Your task to perform on an android device: When is my next appointment? Image 0: 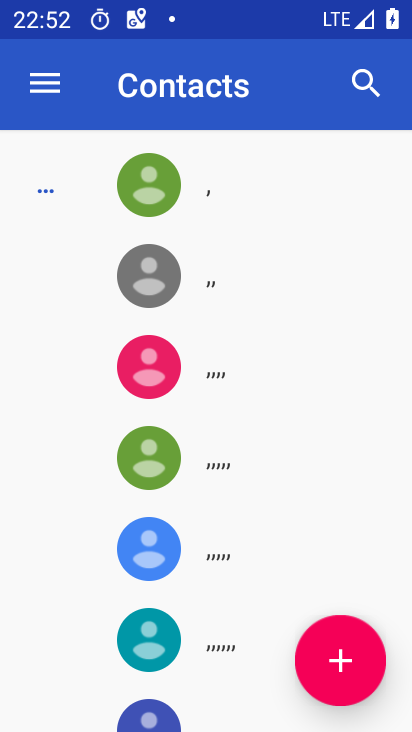
Step 0: press home button
Your task to perform on an android device: When is my next appointment? Image 1: 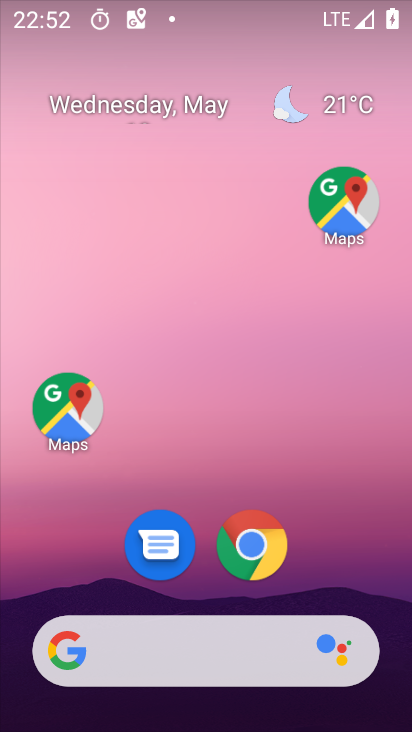
Step 1: drag from (321, 569) to (312, 95)
Your task to perform on an android device: When is my next appointment? Image 2: 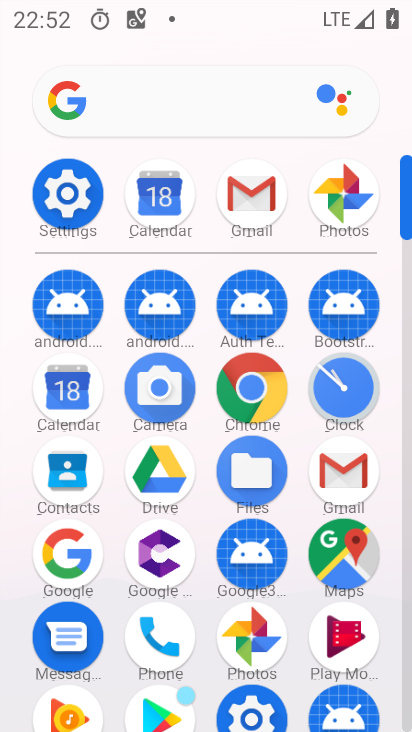
Step 2: click (74, 395)
Your task to perform on an android device: When is my next appointment? Image 3: 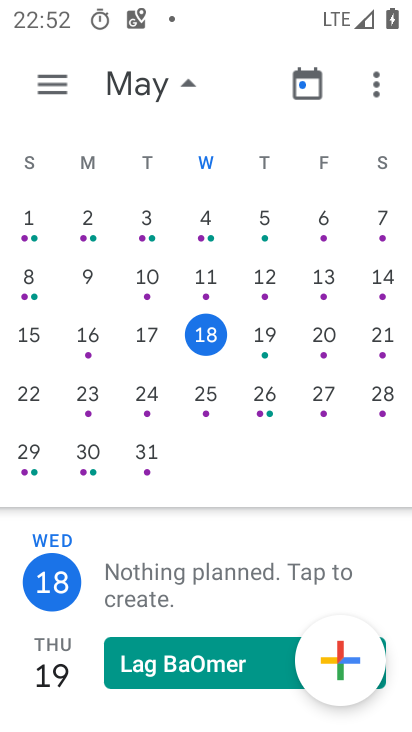
Step 3: click (197, 330)
Your task to perform on an android device: When is my next appointment? Image 4: 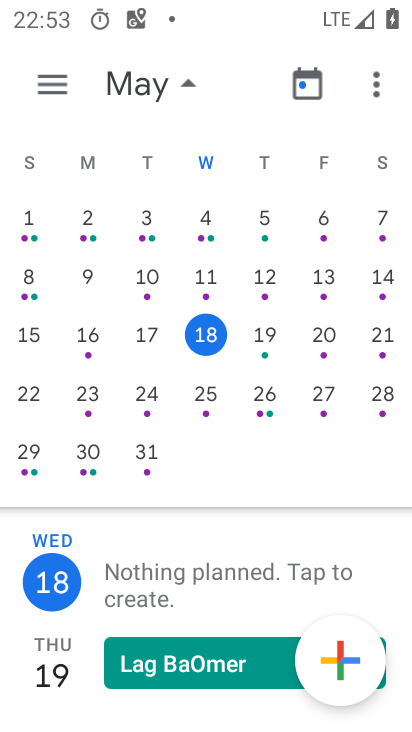
Step 4: task complete